Your task to perform on an android device: check the backup settings in the google photos Image 0: 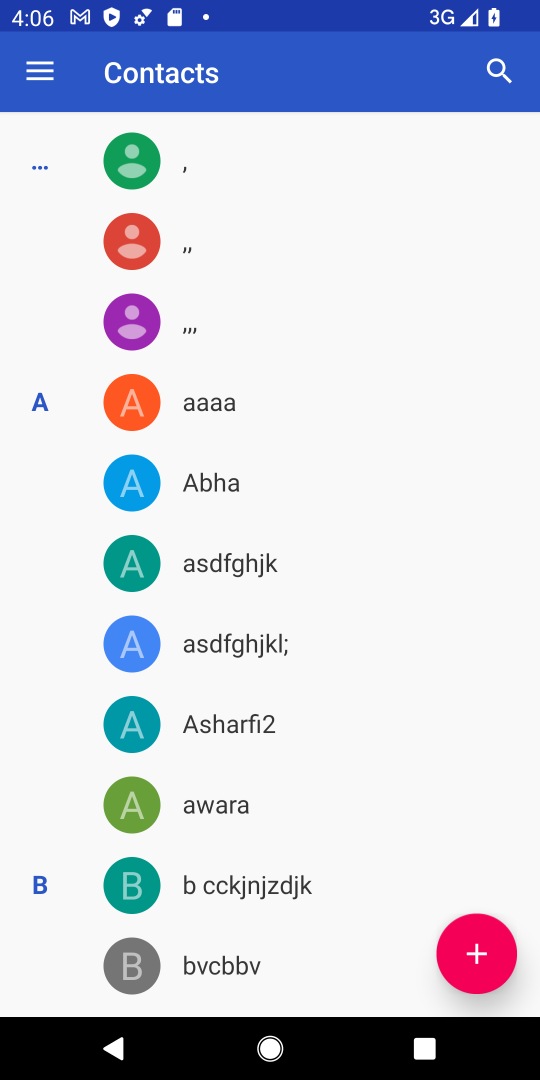
Step 0: press home button
Your task to perform on an android device: check the backup settings in the google photos Image 1: 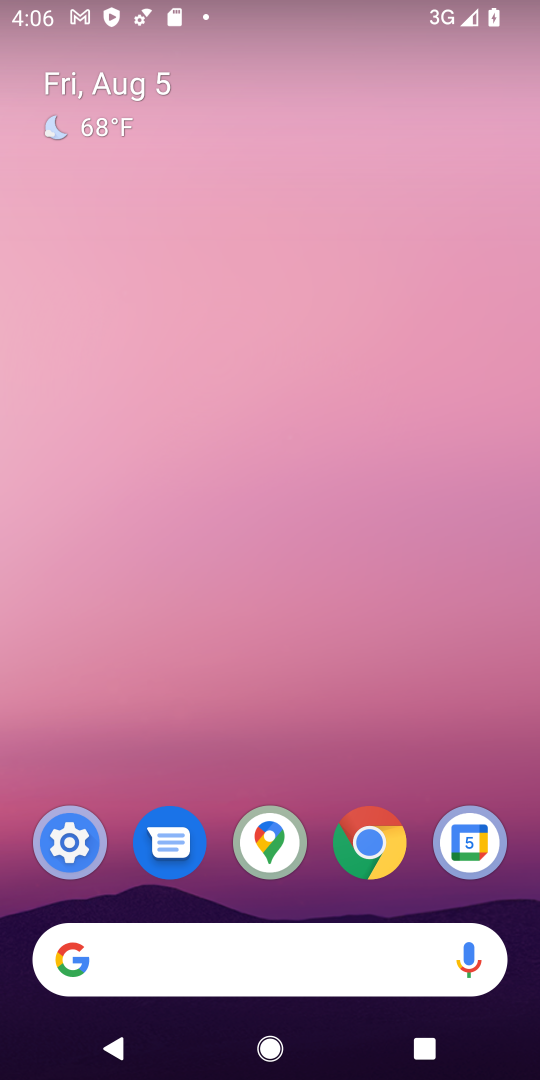
Step 1: drag from (315, 784) to (293, 118)
Your task to perform on an android device: check the backup settings in the google photos Image 2: 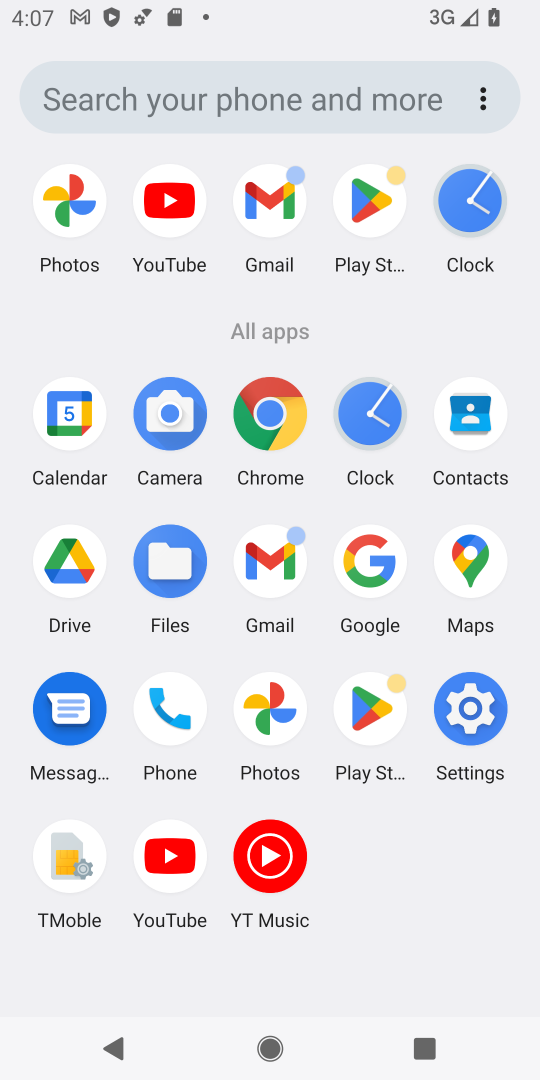
Step 2: click (277, 695)
Your task to perform on an android device: check the backup settings in the google photos Image 3: 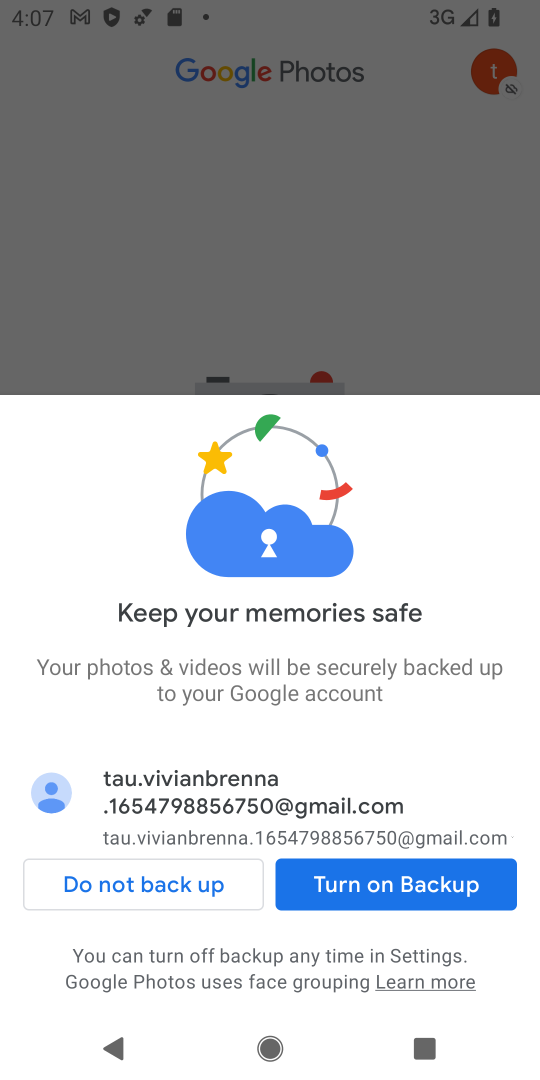
Step 3: click (206, 875)
Your task to perform on an android device: check the backup settings in the google photos Image 4: 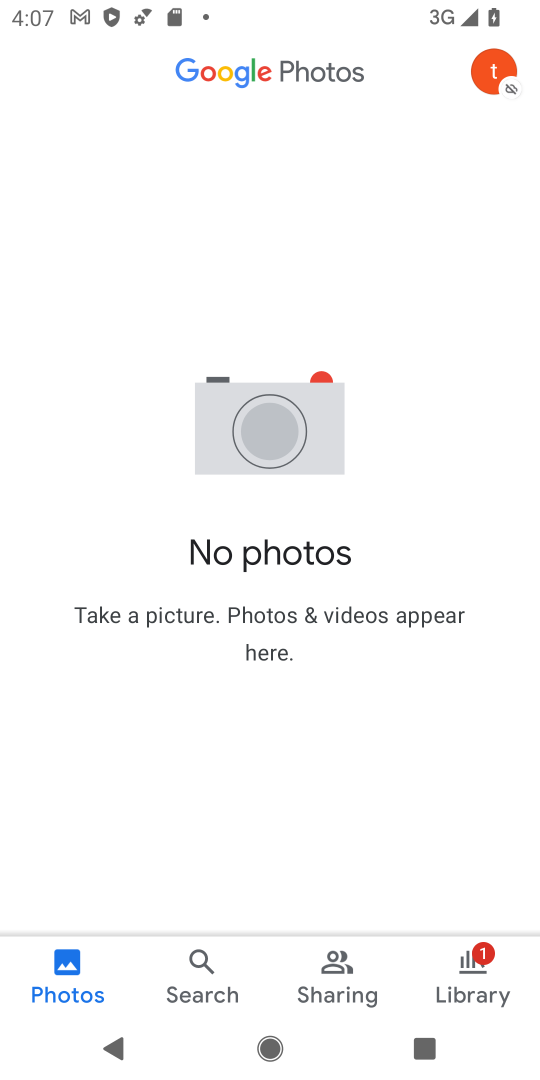
Step 4: click (498, 68)
Your task to perform on an android device: check the backup settings in the google photos Image 5: 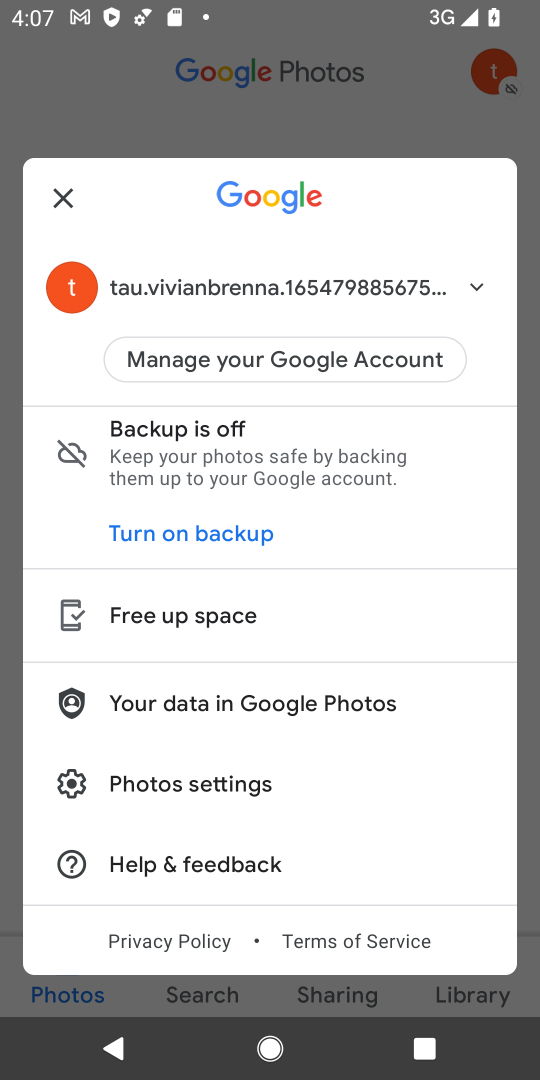
Step 5: click (213, 780)
Your task to perform on an android device: check the backup settings in the google photos Image 6: 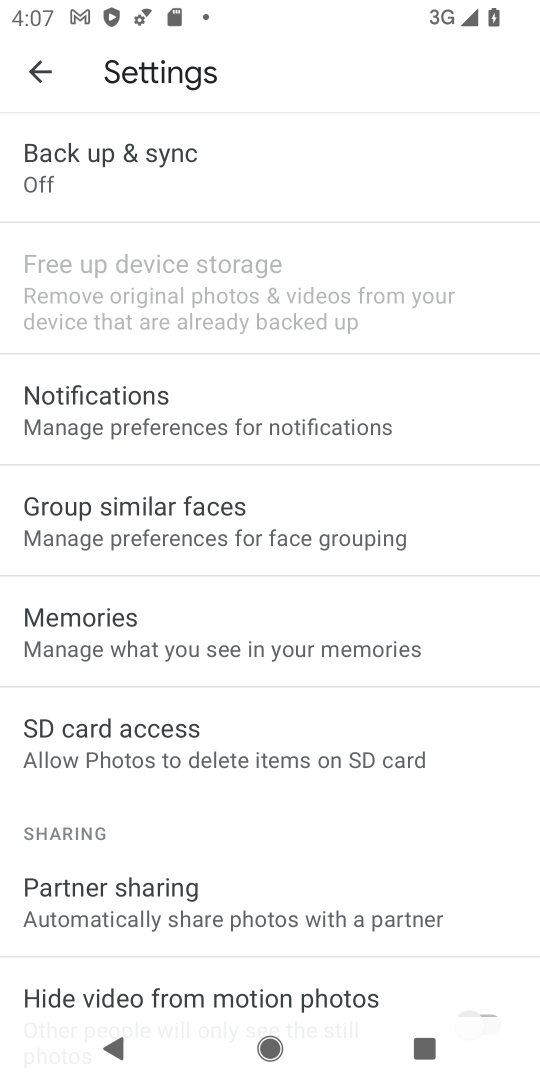
Step 6: click (114, 162)
Your task to perform on an android device: check the backup settings in the google photos Image 7: 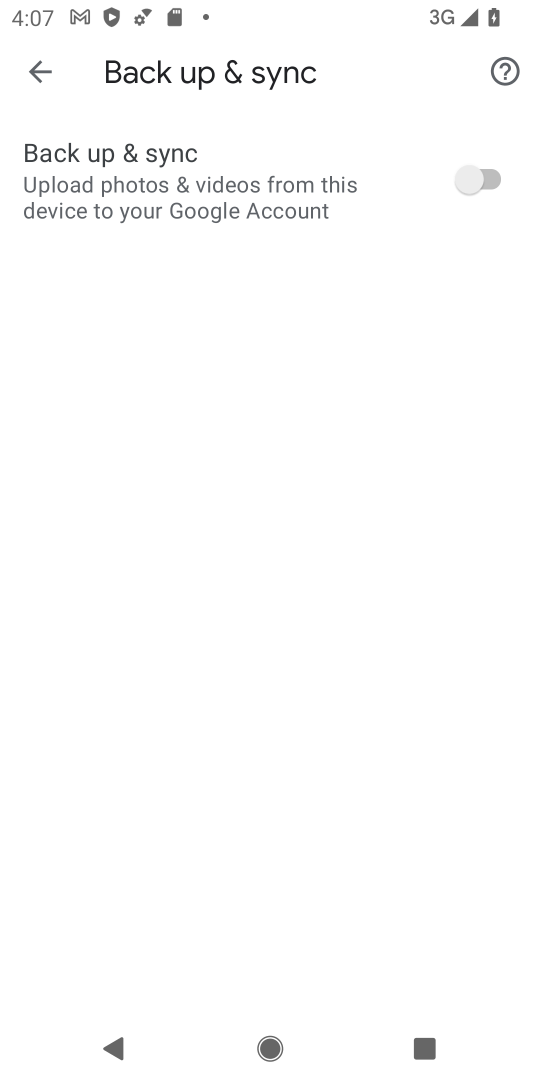
Step 7: task complete